Your task to perform on an android device: open wifi settings Image 0: 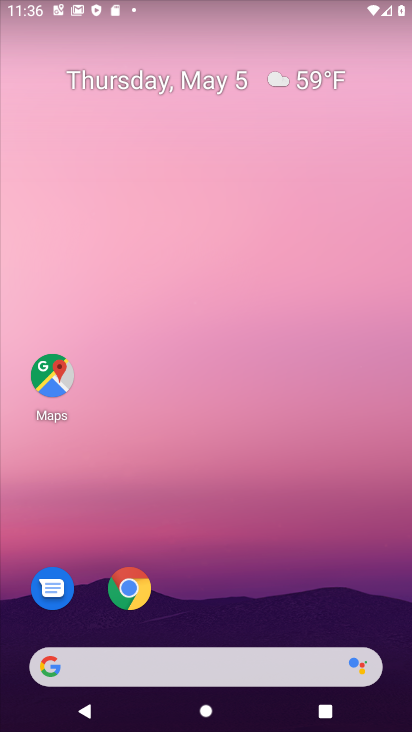
Step 0: drag from (184, 661) to (357, 76)
Your task to perform on an android device: open wifi settings Image 1: 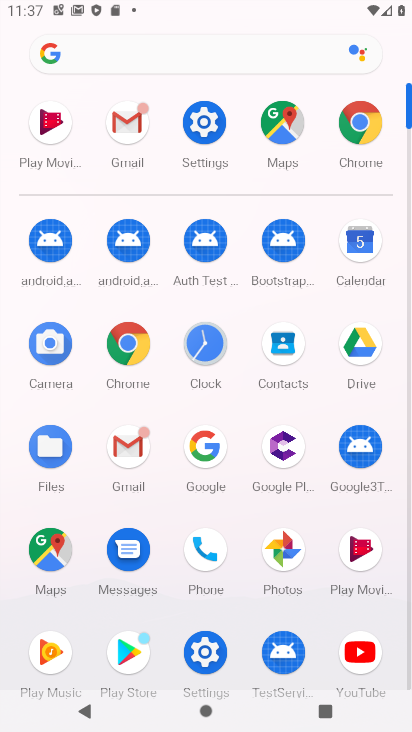
Step 1: click (201, 130)
Your task to perform on an android device: open wifi settings Image 2: 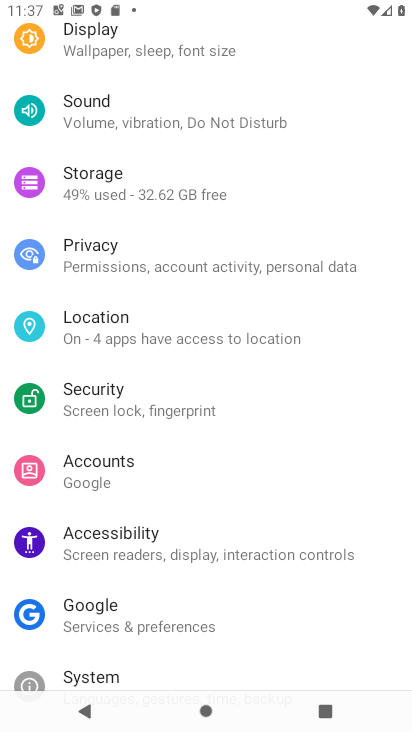
Step 2: drag from (242, 71) to (149, 557)
Your task to perform on an android device: open wifi settings Image 3: 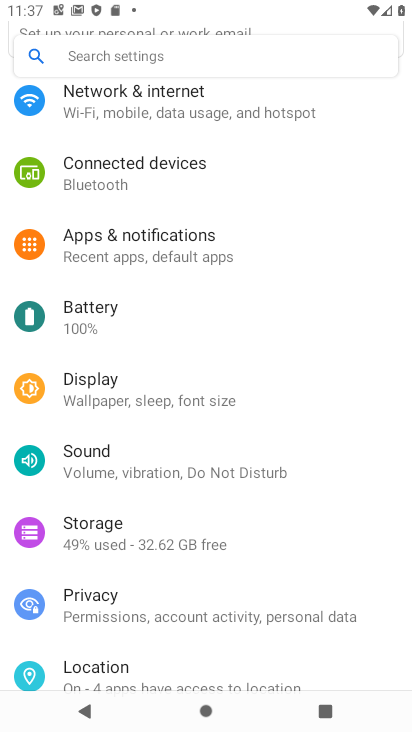
Step 3: drag from (300, 170) to (214, 467)
Your task to perform on an android device: open wifi settings Image 4: 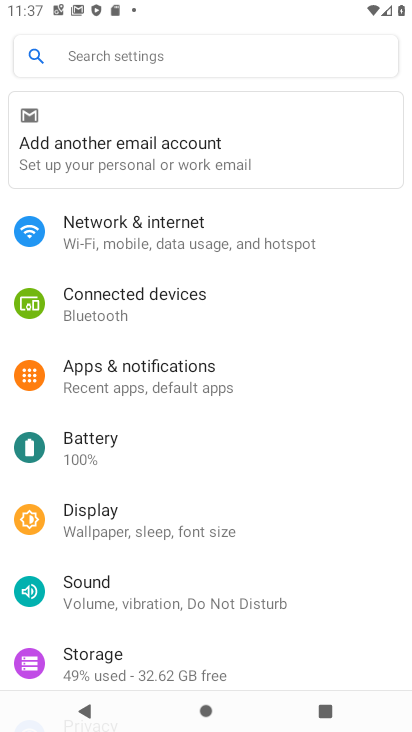
Step 4: click (193, 227)
Your task to perform on an android device: open wifi settings Image 5: 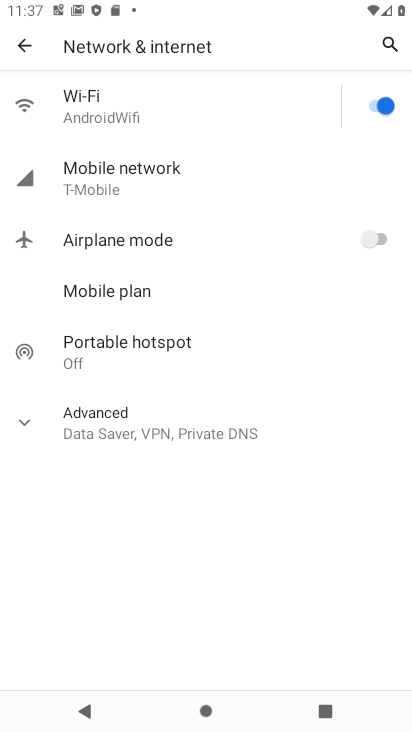
Step 5: click (120, 113)
Your task to perform on an android device: open wifi settings Image 6: 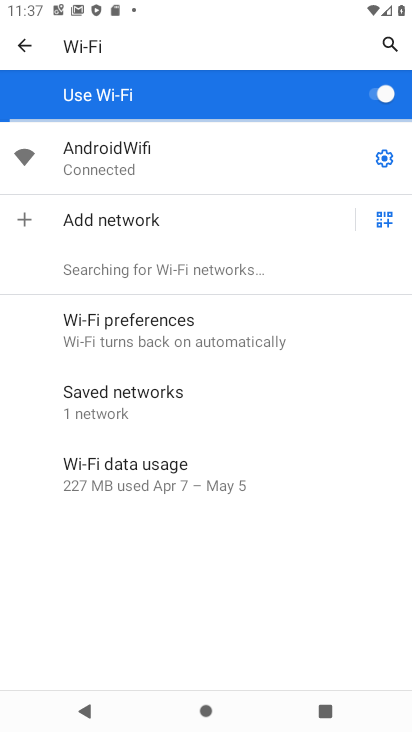
Step 6: task complete